Your task to perform on an android device: Search for Italian restaurants on Maps Image 0: 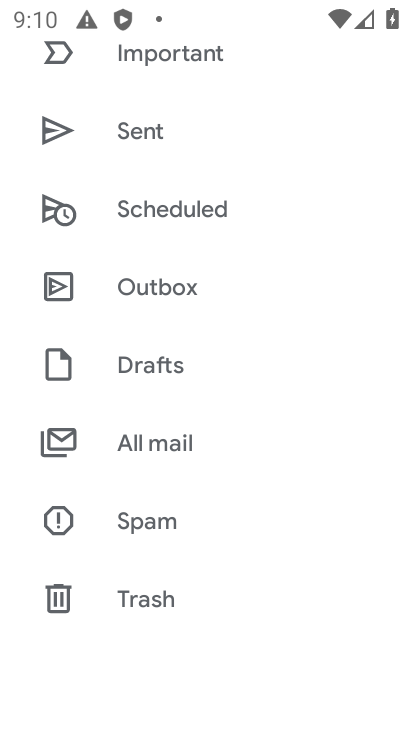
Step 0: press home button
Your task to perform on an android device: Search for Italian restaurants on Maps Image 1: 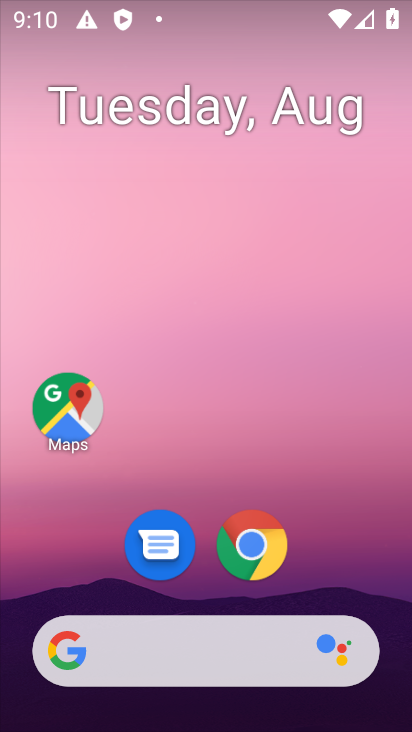
Step 1: click (54, 411)
Your task to perform on an android device: Search for Italian restaurants on Maps Image 2: 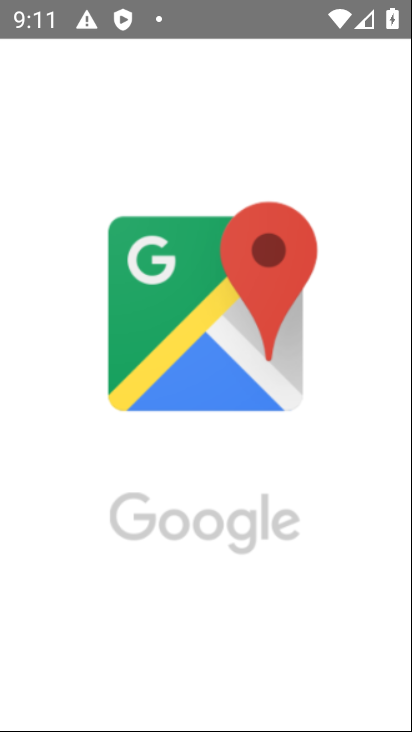
Step 2: task complete